Your task to perform on an android device: delete a single message in the gmail app Image 0: 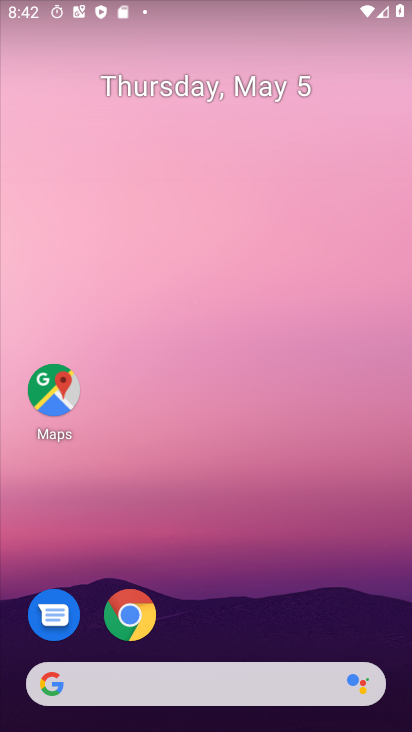
Step 0: drag from (222, 648) to (286, 210)
Your task to perform on an android device: delete a single message in the gmail app Image 1: 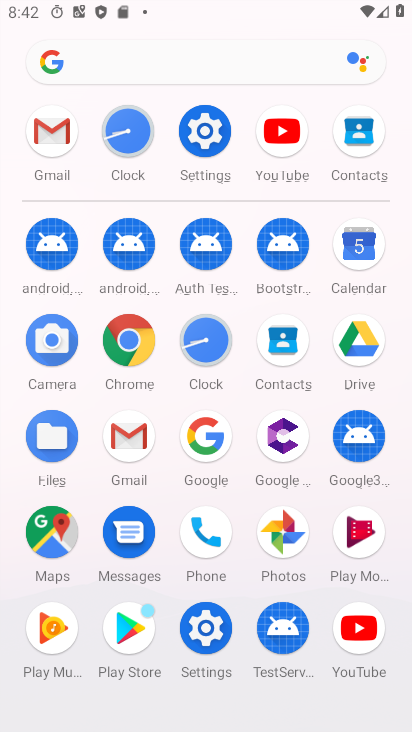
Step 1: click (144, 445)
Your task to perform on an android device: delete a single message in the gmail app Image 2: 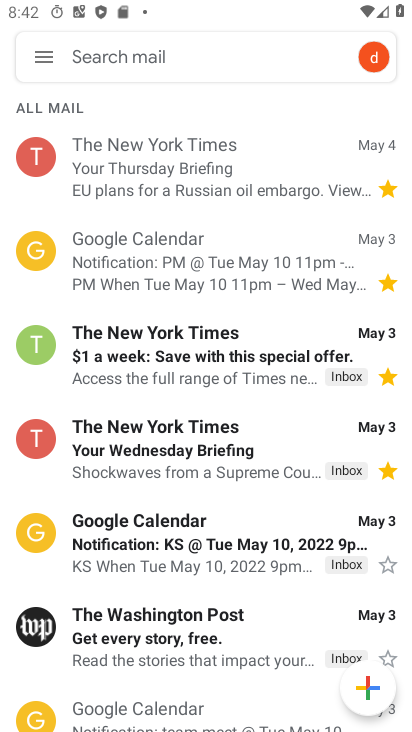
Step 2: click (46, 70)
Your task to perform on an android device: delete a single message in the gmail app Image 3: 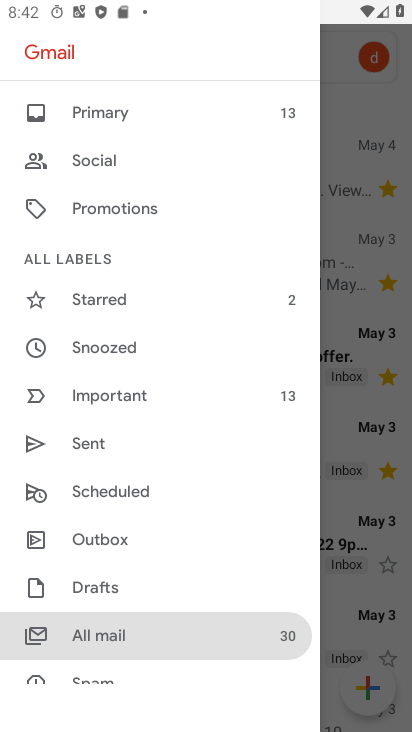
Step 3: click (341, 194)
Your task to perform on an android device: delete a single message in the gmail app Image 4: 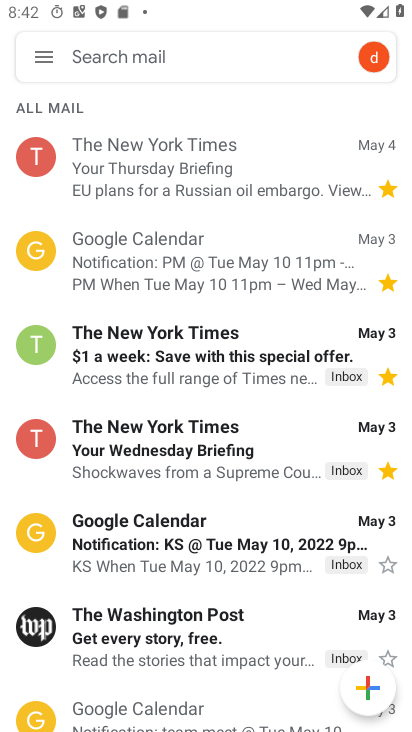
Step 4: click (51, 152)
Your task to perform on an android device: delete a single message in the gmail app Image 5: 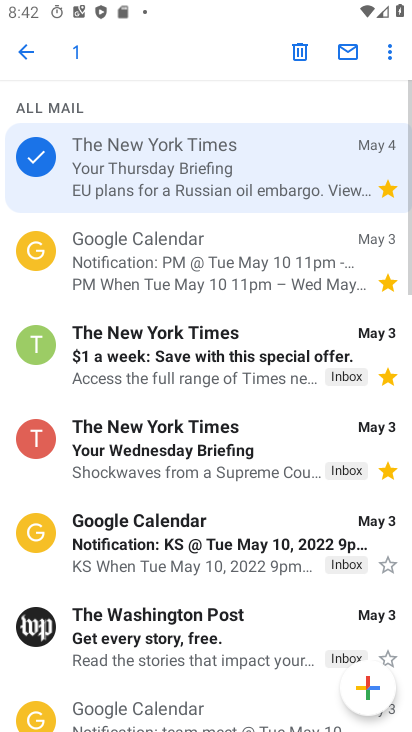
Step 5: click (299, 48)
Your task to perform on an android device: delete a single message in the gmail app Image 6: 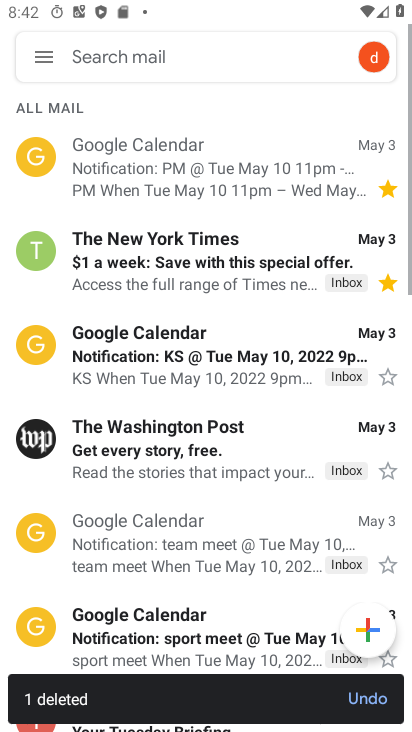
Step 6: task complete